Your task to perform on an android device: turn on translation in the chrome app Image 0: 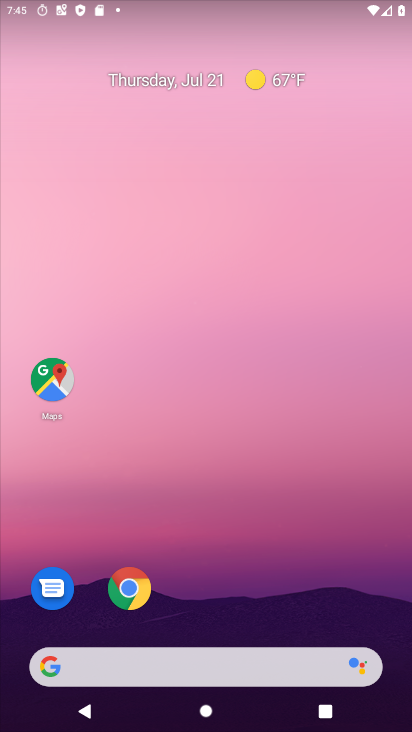
Step 0: click (126, 588)
Your task to perform on an android device: turn on translation in the chrome app Image 1: 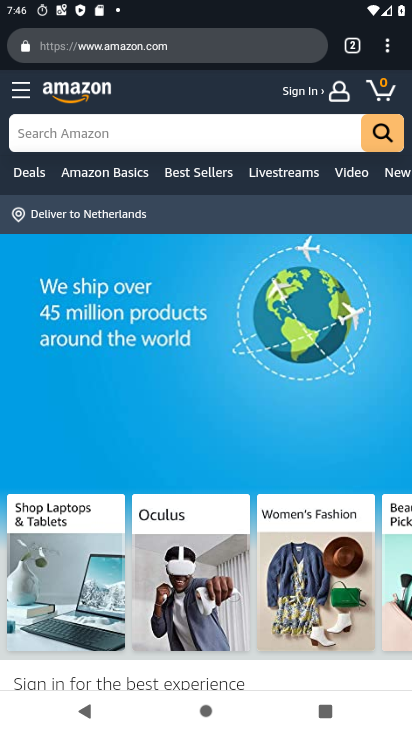
Step 1: click (390, 42)
Your task to perform on an android device: turn on translation in the chrome app Image 2: 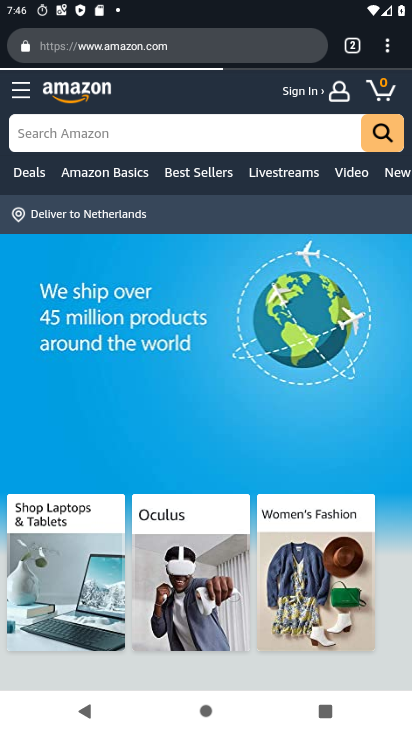
Step 2: click (390, 42)
Your task to perform on an android device: turn on translation in the chrome app Image 3: 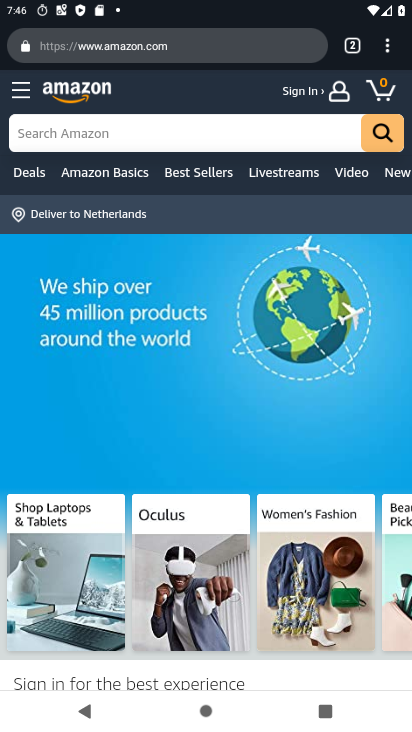
Step 3: click (377, 47)
Your task to perform on an android device: turn on translation in the chrome app Image 4: 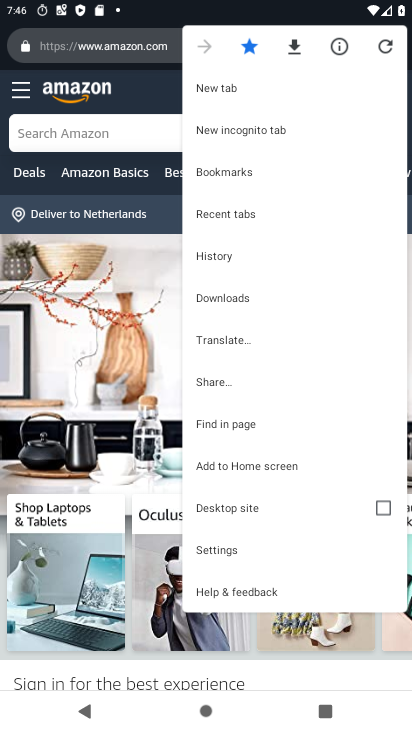
Step 4: click (214, 547)
Your task to perform on an android device: turn on translation in the chrome app Image 5: 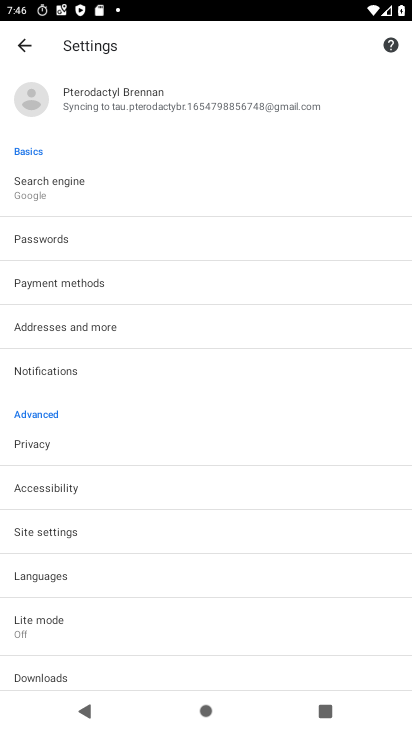
Step 5: click (66, 584)
Your task to perform on an android device: turn on translation in the chrome app Image 6: 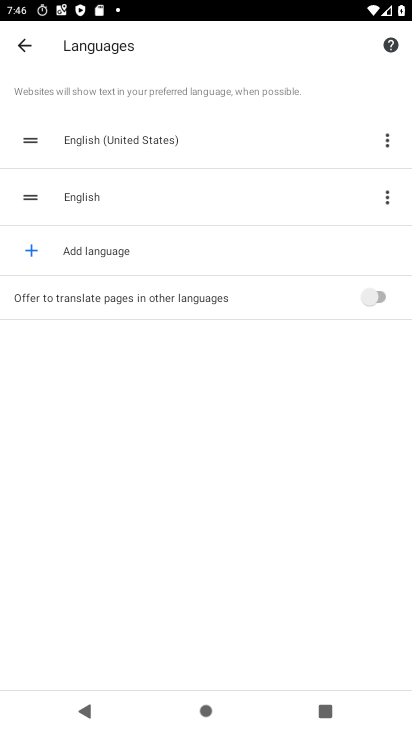
Step 6: click (385, 301)
Your task to perform on an android device: turn on translation in the chrome app Image 7: 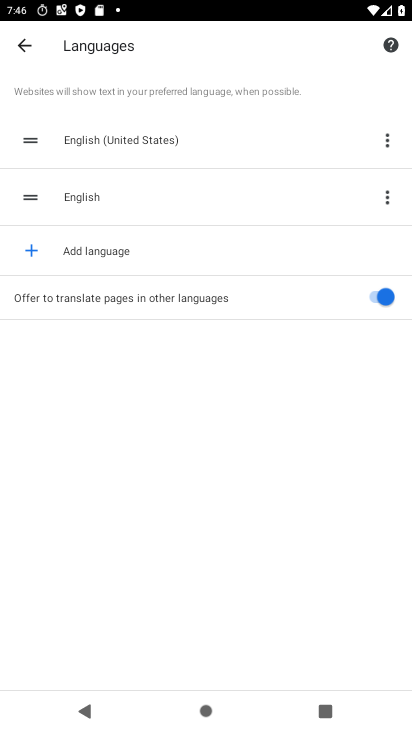
Step 7: task complete